Your task to perform on an android device: set the stopwatch Image 0: 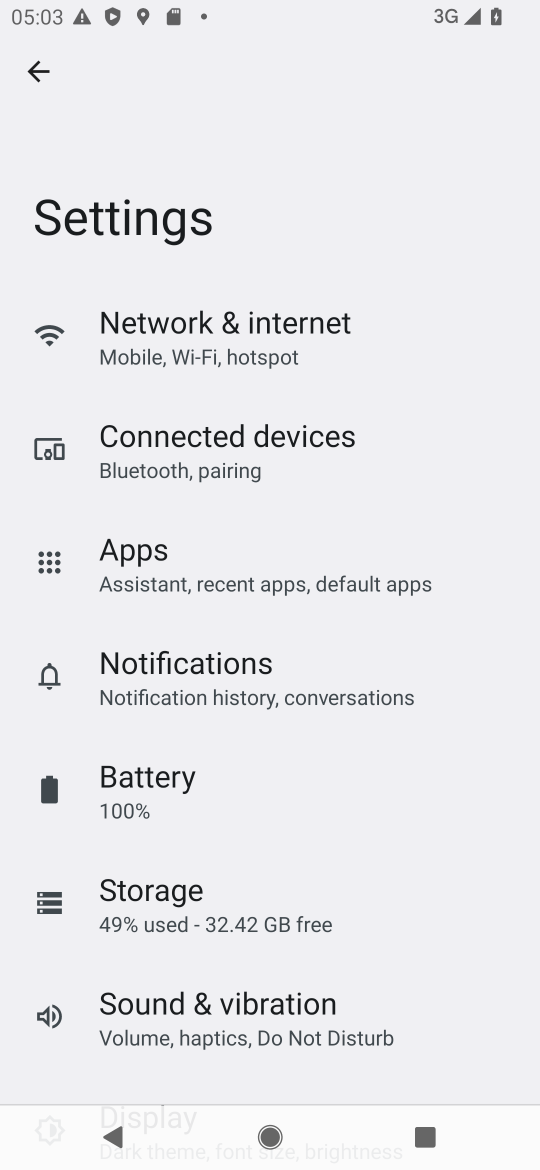
Step 0: press home button
Your task to perform on an android device: set the stopwatch Image 1: 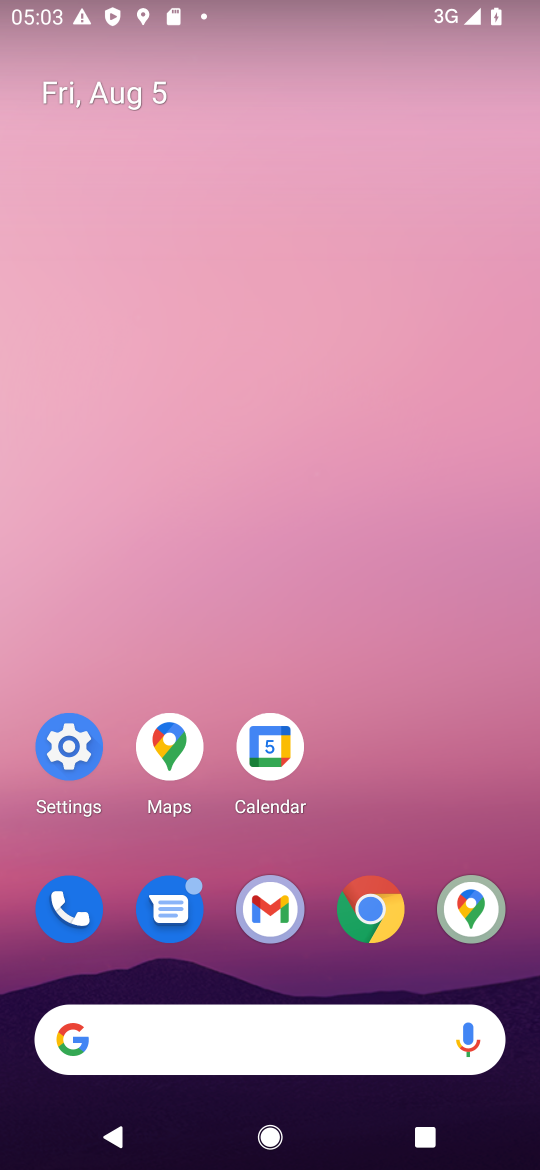
Step 1: drag from (366, 807) to (252, 0)
Your task to perform on an android device: set the stopwatch Image 2: 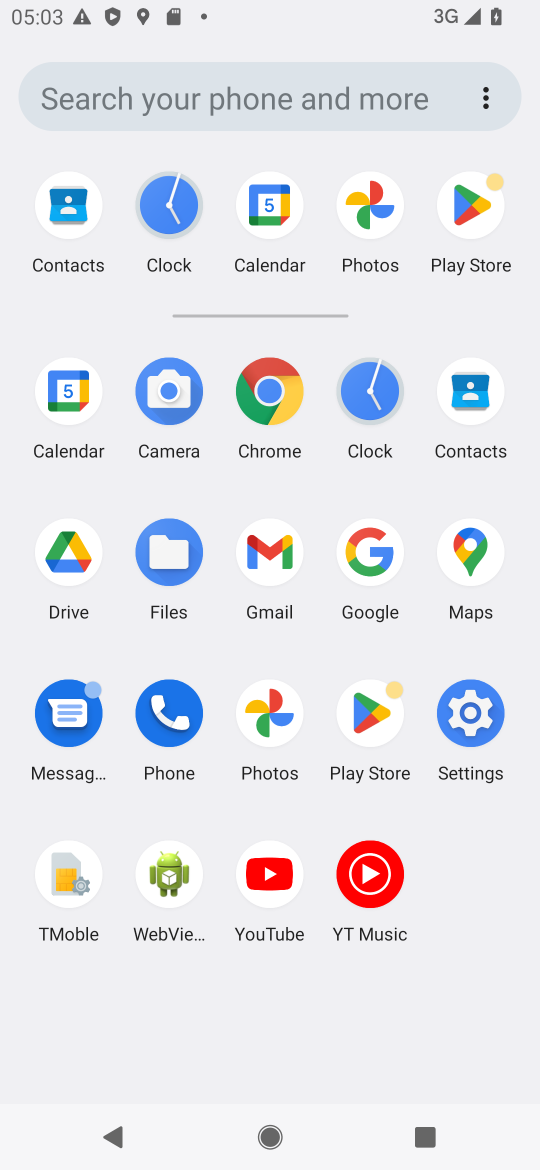
Step 2: click (168, 204)
Your task to perform on an android device: set the stopwatch Image 3: 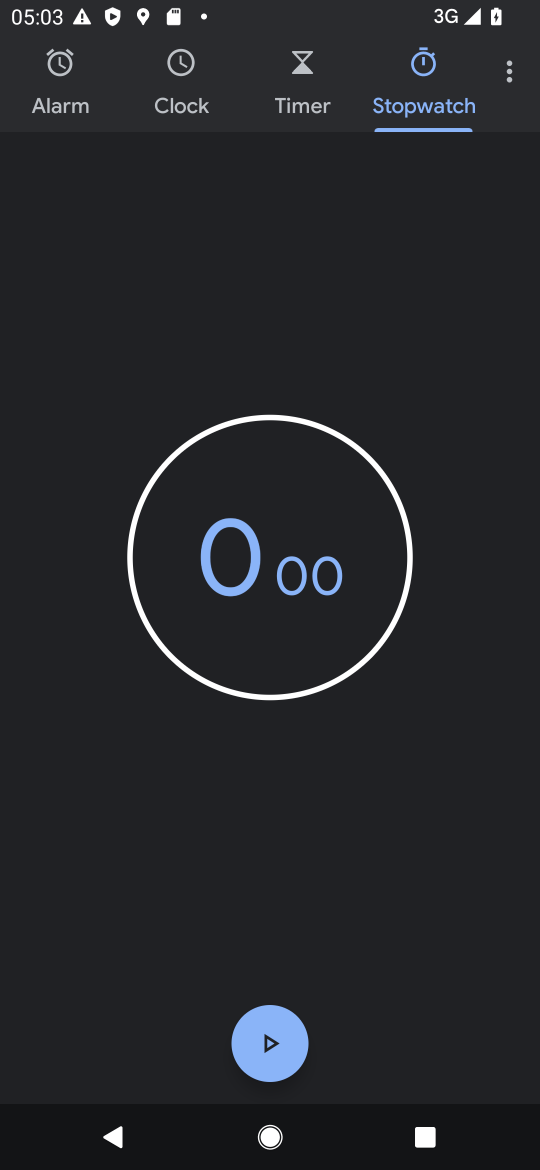
Step 3: task complete